Your task to perform on an android device: Search for the best selling video games at Target Image 0: 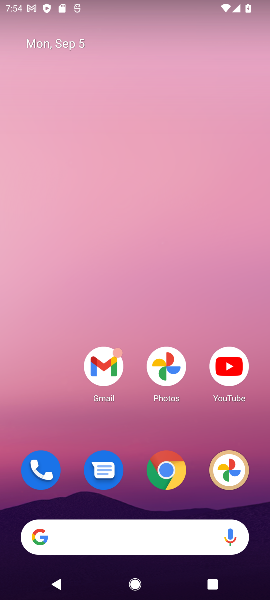
Step 0: drag from (110, 420) to (122, 60)
Your task to perform on an android device: Search for the best selling video games at Target Image 1: 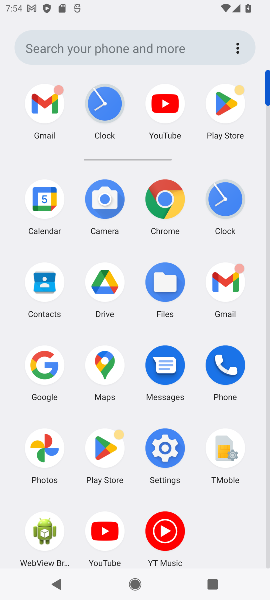
Step 1: click (156, 205)
Your task to perform on an android device: Search for the best selling video games at Target Image 2: 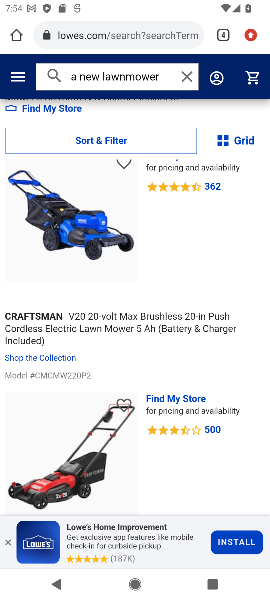
Step 2: click (223, 32)
Your task to perform on an android device: Search for the best selling video games at Target Image 3: 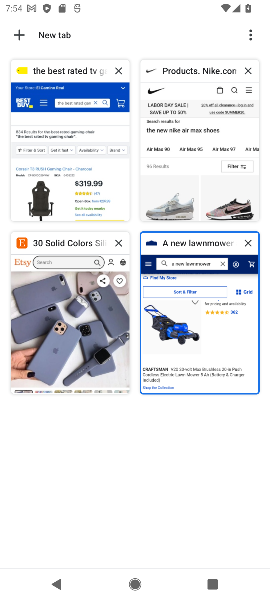
Step 3: click (17, 36)
Your task to perform on an android device: Search for the best selling video games at Target Image 4: 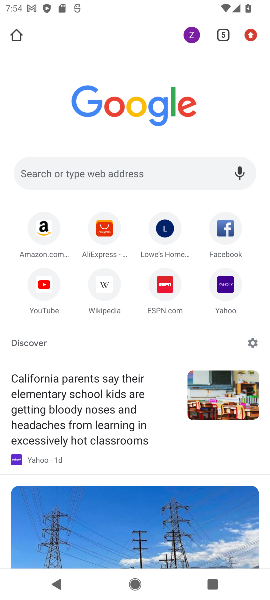
Step 4: click (100, 162)
Your task to perform on an android device: Search for the best selling video games at Target Image 5: 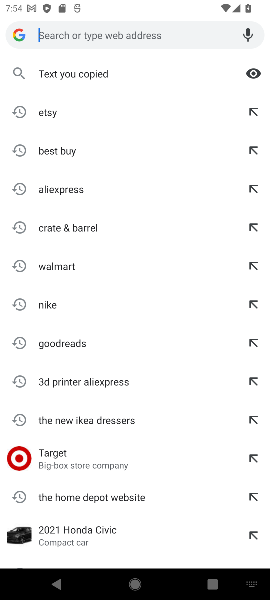
Step 5: type "Target"
Your task to perform on an android device: Search for the best selling video games at Target Image 6: 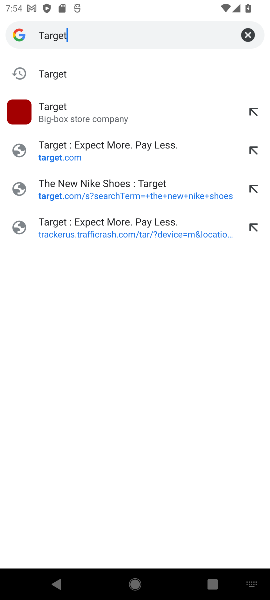
Step 6: type ""
Your task to perform on an android device: Search for the best selling video games at Target Image 7: 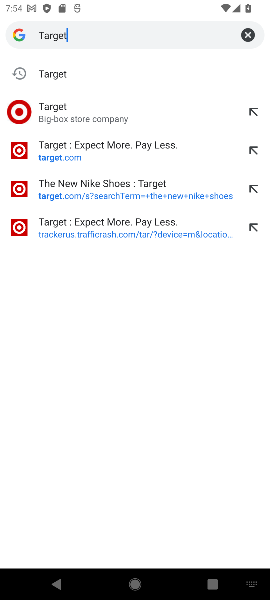
Step 7: click (85, 75)
Your task to perform on an android device: Search for the best selling video games at Target Image 8: 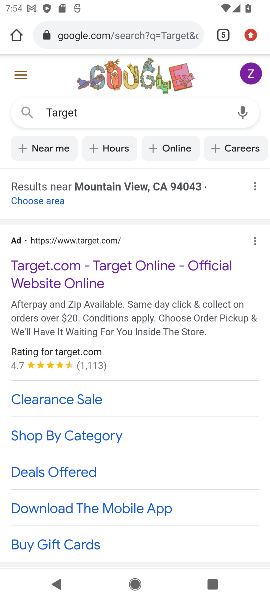
Step 8: click (56, 275)
Your task to perform on an android device: Search for the best selling video games at Target Image 9: 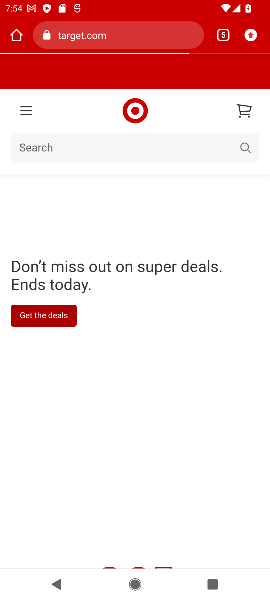
Step 9: click (94, 149)
Your task to perform on an android device: Search for the best selling video games at Target Image 10: 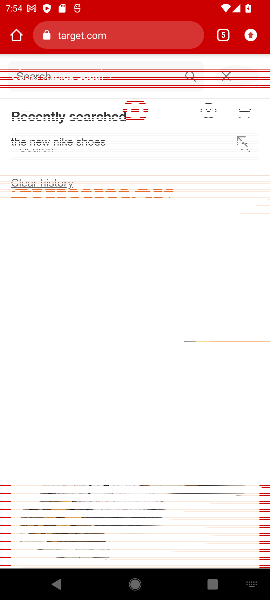
Step 10: type "the best selling video games"
Your task to perform on an android device: Search for the best selling video games at Target Image 11: 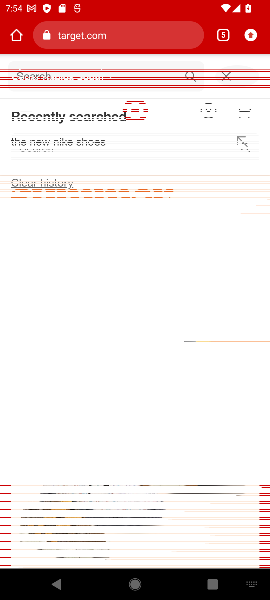
Step 11: type ""
Your task to perform on an android device: Search for the best selling video games at Target Image 12: 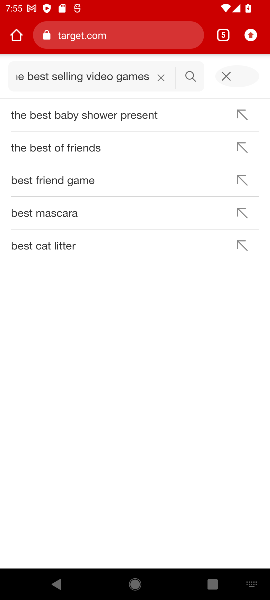
Step 12: click (189, 76)
Your task to perform on an android device: Search for the best selling video games at Target Image 13: 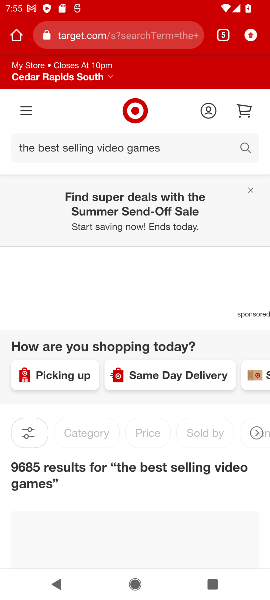
Step 13: click (249, 191)
Your task to perform on an android device: Search for the best selling video games at Target Image 14: 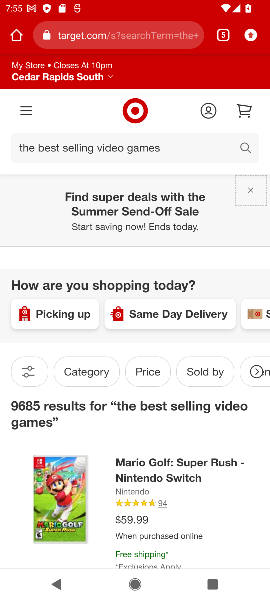
Step 14: click (249, 184)
Your task to perform on an android device: Search for the best selling video games at Target Image 15: 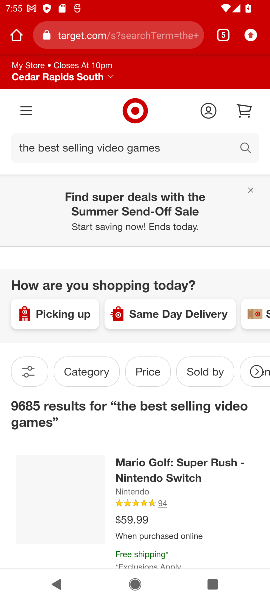
Step 15: click (250, 183)
Your task to perform on an android device: Search for the best selling video games at Target Image 16: 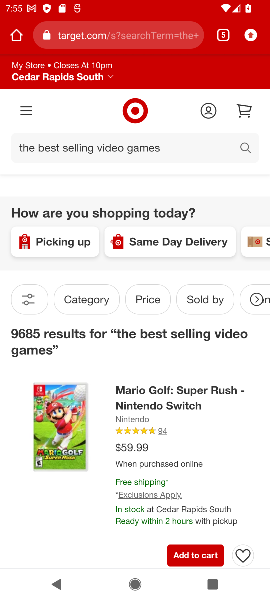
Step 16: task complete